Your task to perform on an android device: Open my contact list Image 0: 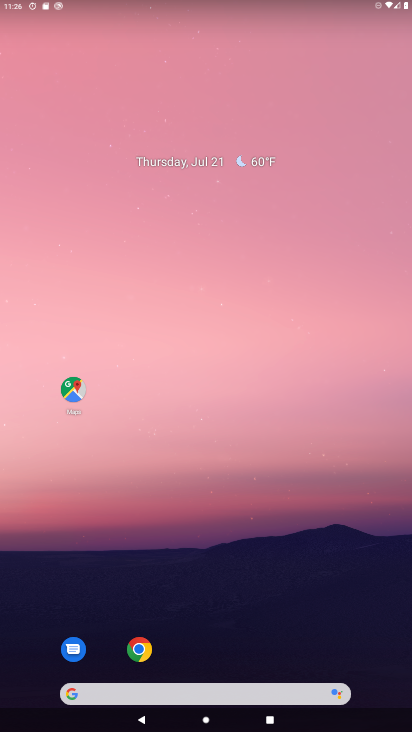
Step 0: click (142, 652)
Your task to perform on an android device: Open my contact list Image 1: 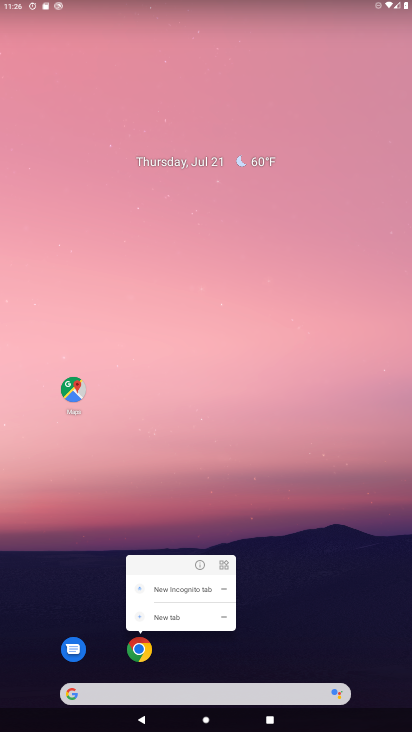
Step 1: click (138, 651)
Your task to perform on an android device: Open my contact list Image 2: 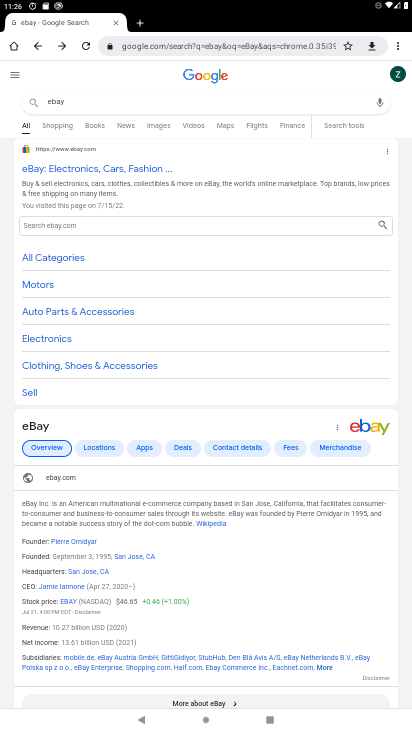
Step 2: click (331, 45)
Your task to perform on an android device: Open my contact list Image 3: 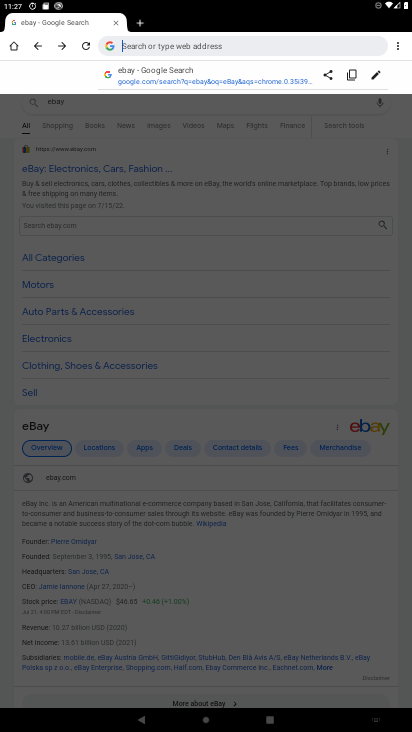
Step 3: press home button
Your task to perform on an android device: Open my contact list Image 4: 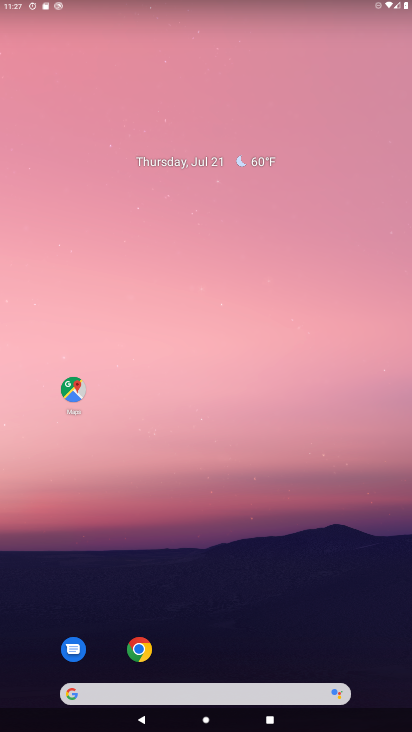
Step 4: drag from (390, 709) to (308, 81)
Your task to perform on an android device: Open my contact list Image 5: 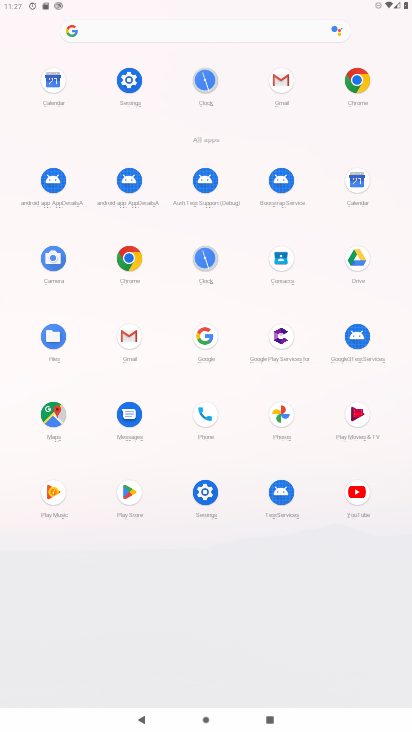
Step 5: click (286, 258)
Your task to perform on an android device: Open my contact list Image 6: 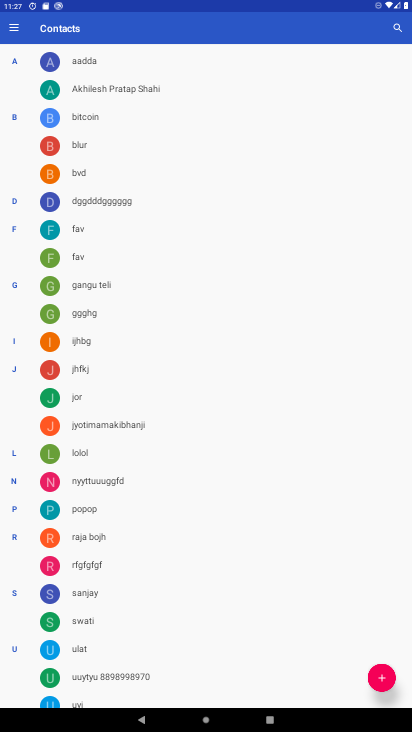
Step 6: click (377, 675)
Your task to perform on an android device: Open my contact list Image 7: 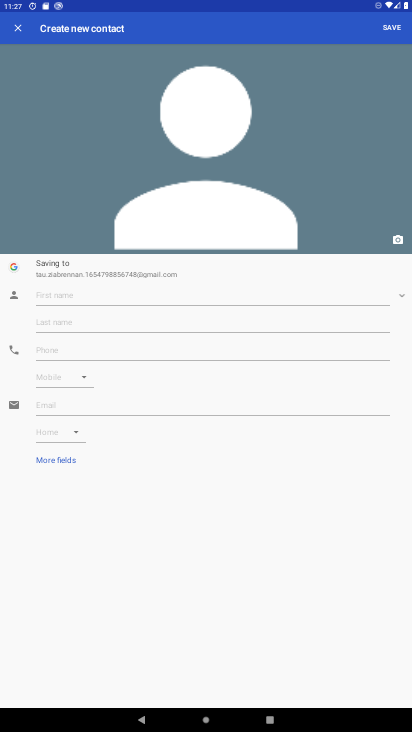
Step 7: click (201, 298)
Your task to perform on an android device: Open my contact list Image 8: 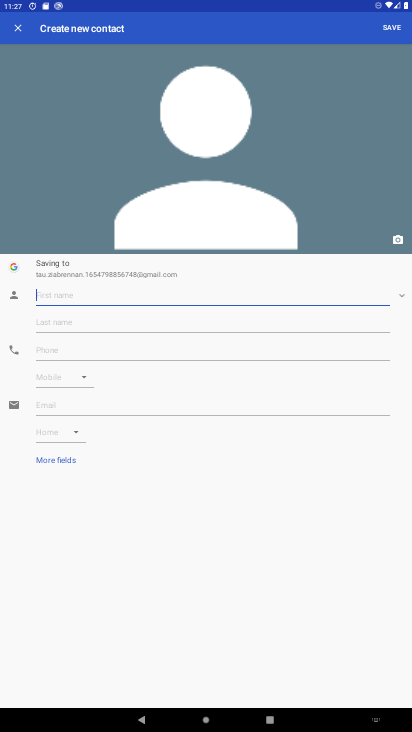
Step 8: type "cchgvhggvhv"
Your task to perform on an android device: Open my contact list Image 9: 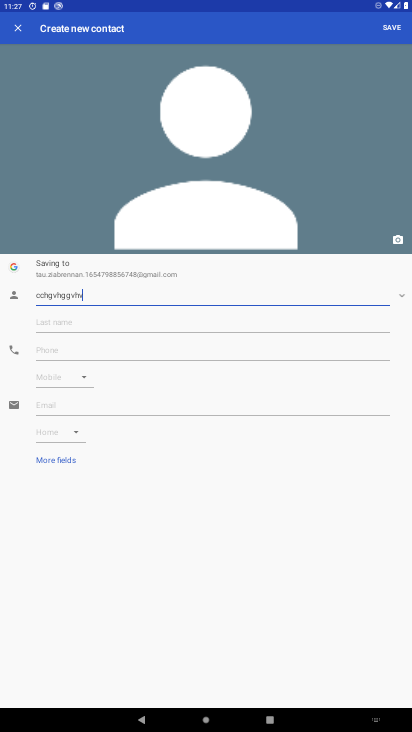
Step 9: click (67, 316)
Your task to perform on an android device: Open my contact list Image 10: 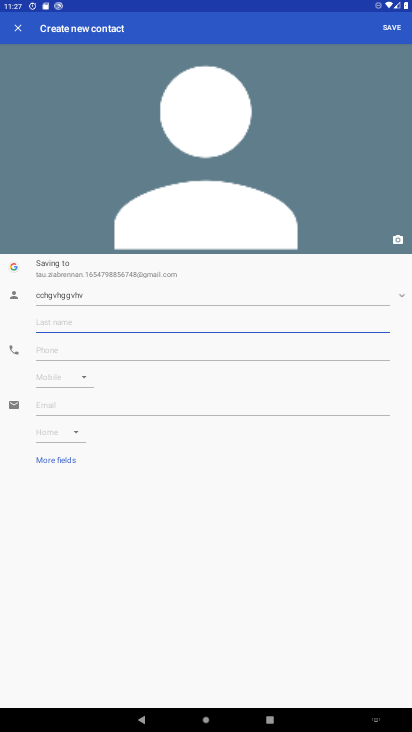
Step 10: type "xryfchvfghdh "
Your task to perform on an android device: Open my contact list Image 11: 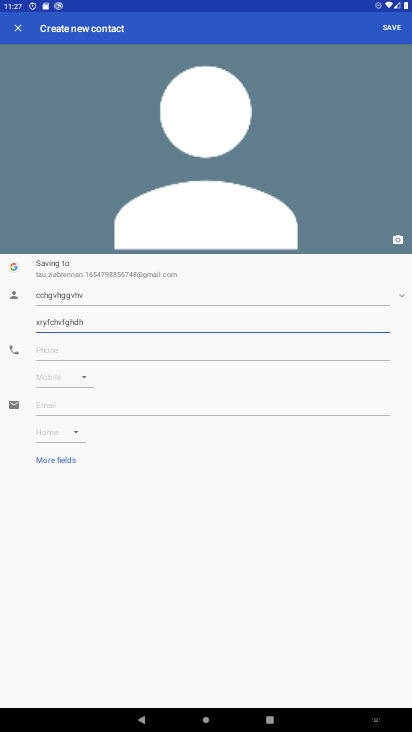
Step 11: click (49, 348)
Your task to perform on an android device: Open my contact list Image 12: 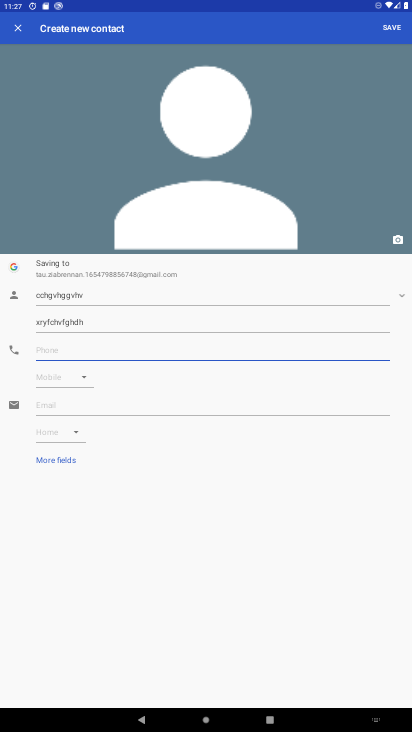
Step 12: type "455475647554334465"
Your task to perform on an android device: Open my contact list Image 13: 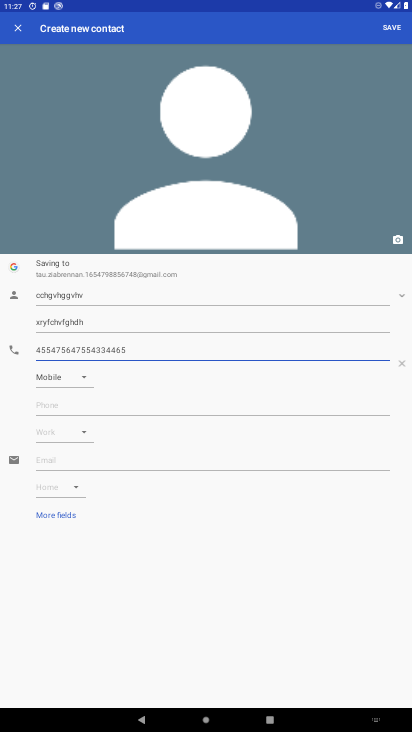
Step 13: click (388, 24)
Your task to perform on an android device: Open my contact list Image 14: 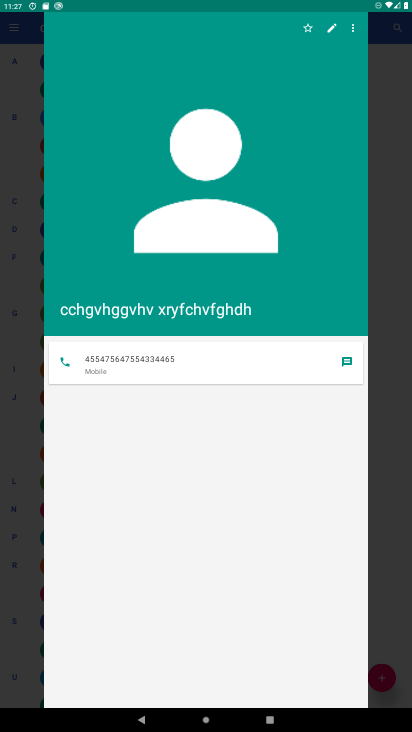
Step 14: task complete